Your task to perform on an android device: Go to Amazon Image 0: 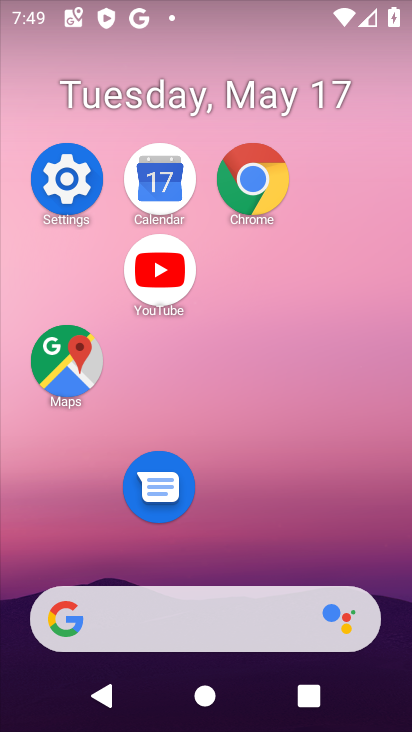
Step 0: click (237, 185)
Your task to perform on an android device: Go to Amazon Image 1: 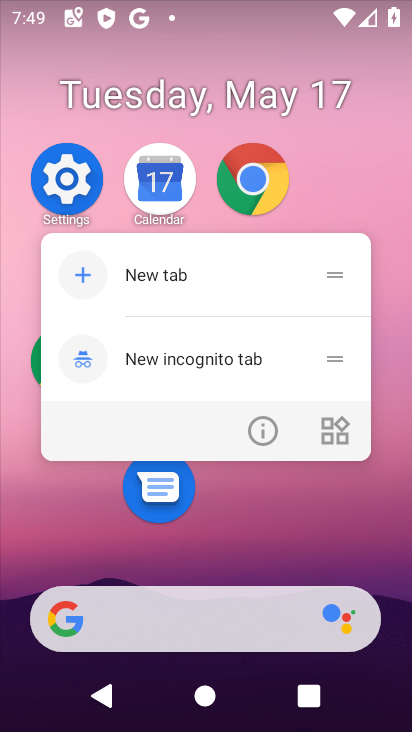
Step 1: click (237, 185)
Your task to perform on an android device: Go to Amazon Image 2: 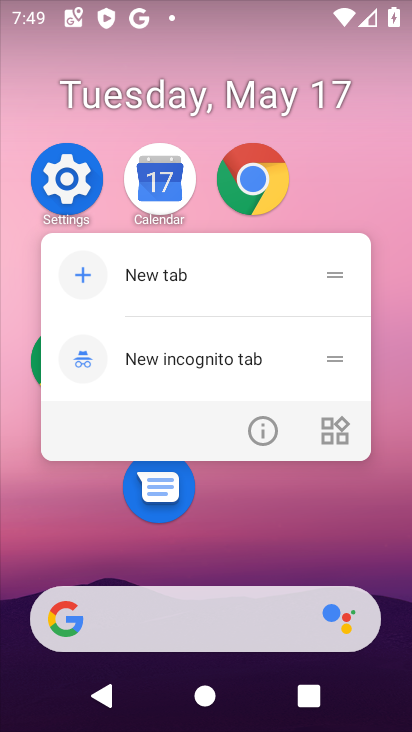
Step 2: click (237, 185)
Your task to perform on an android device: Go to Amazon Image 3: 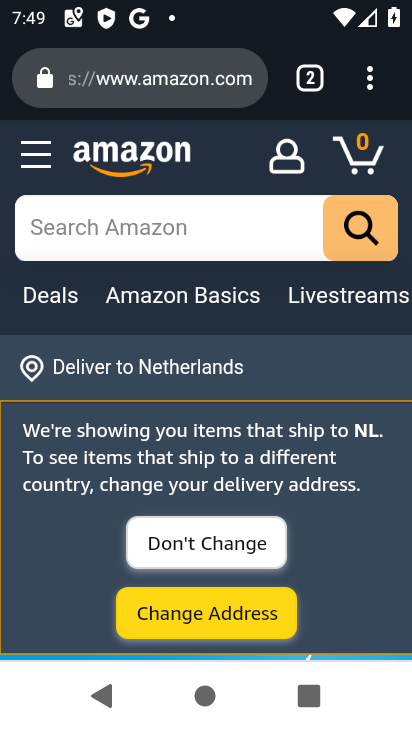
Step 3: task complete